Your task to perform on an android device: turn off priority inbox in the gmail app Image 0: 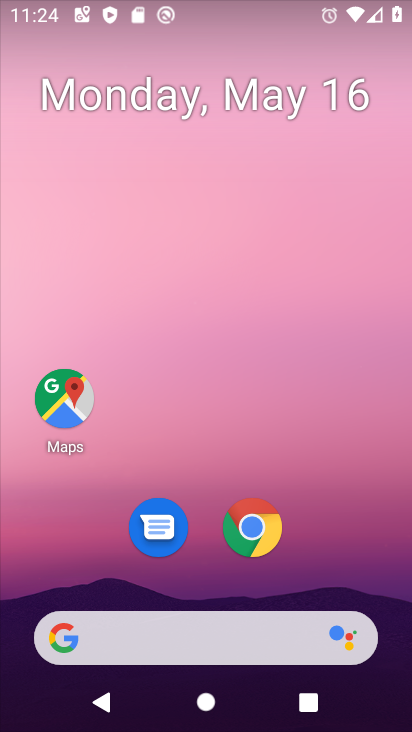
Step 0: drag from (322, 580) to (257, 15)
Your task to perform on an android device: turn off priority inbox in the gmail app Image 1: 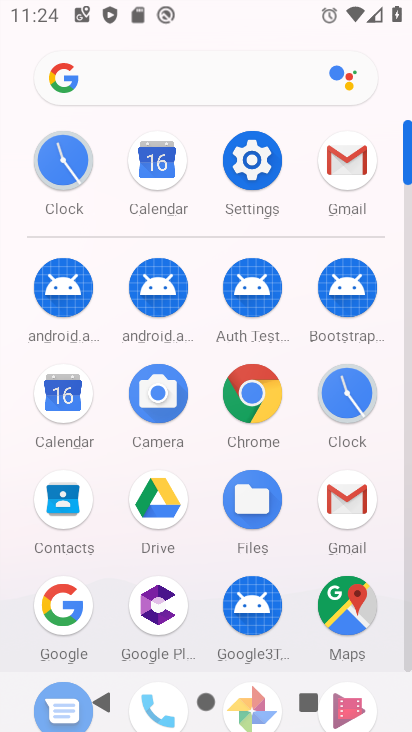
Step 1: click (350, 177)
Your task to perform on an android device: turn off priority inbox in the gmail app Image 2: 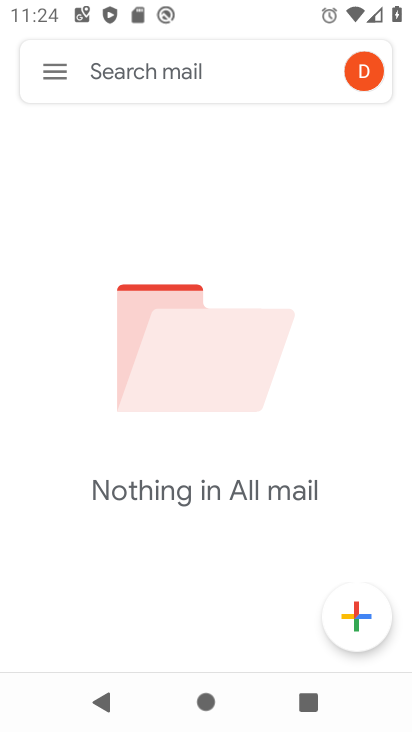
Step 2: click (64, 73)
Your task to perform on an android device: turn off priority inbox in the gmail app Image 3: 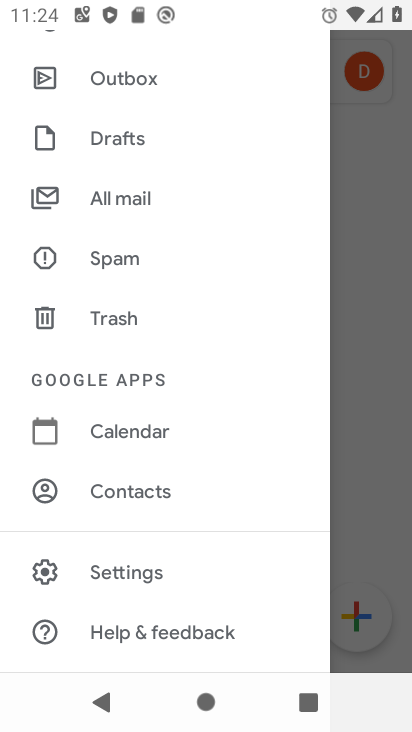
Step 3: click (97, 580)
Your task to perform on an android device: turn off priority inbox in the gmail app Image 4: 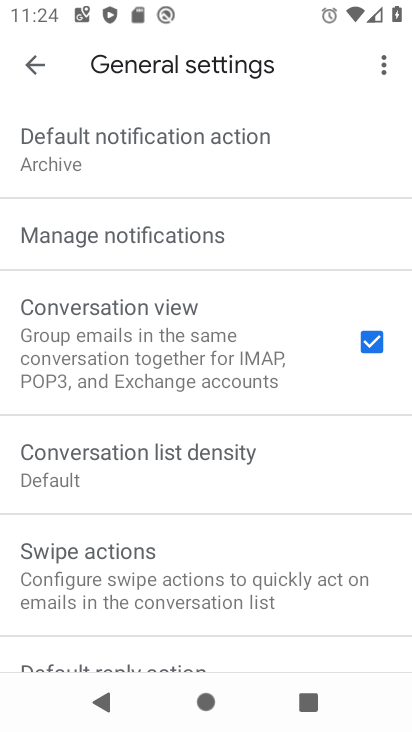
Step 4: click (38, 66)
Your task to perform on an android device: turn off priority inbox in the gmail app Image 5: 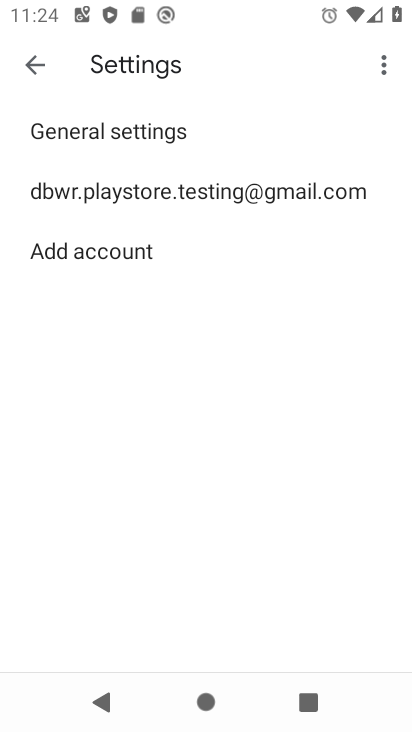
Step 5: click (106, 198)
Your task to perform on an android device: turn off priority inbox in the gmail app Image 6: 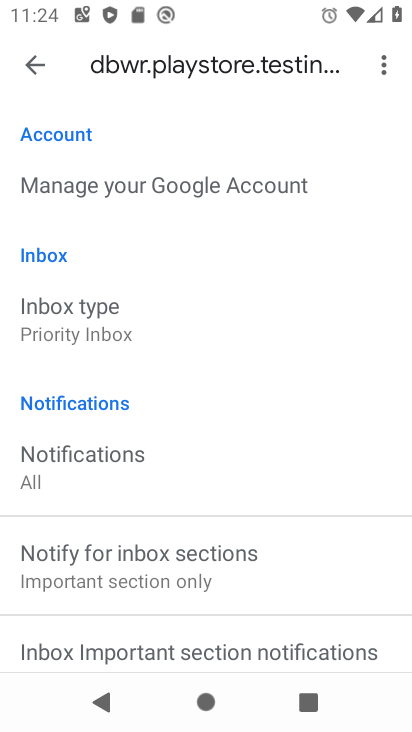
Step 6: click (67, 328)
Your task to perform on an android device: turn off priority inbox in the gmail app Image 7: 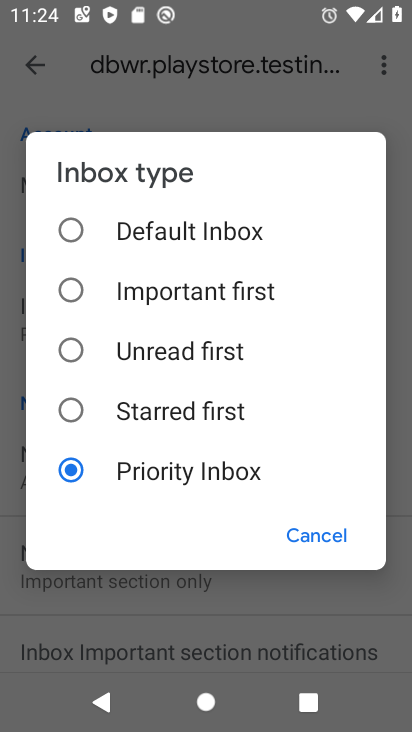
Step 7: click (77, 238)
Your task to perform on an android device: turn off priority inbox in the gmail app Image 8: 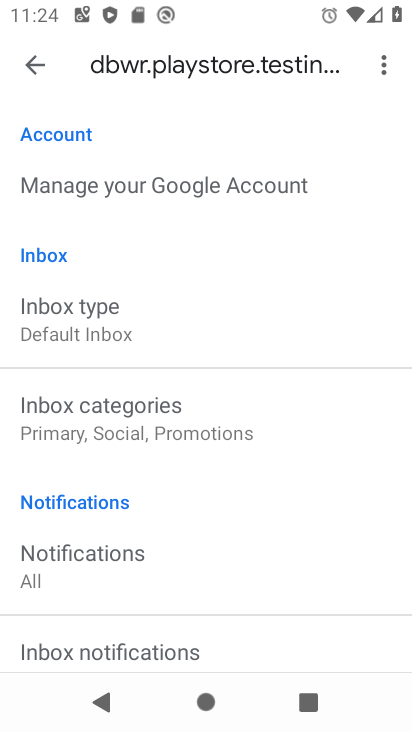
Step 8: task complete